Your task to perform on an android device: Go to Android settings Image 0: 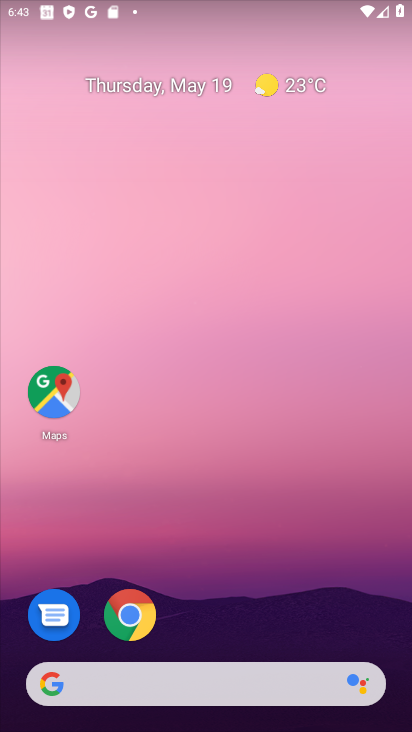
Step 0: drag from (359, 625) to (245, 67)
Your task to perform on an android device: Go to Android settings Image 1: 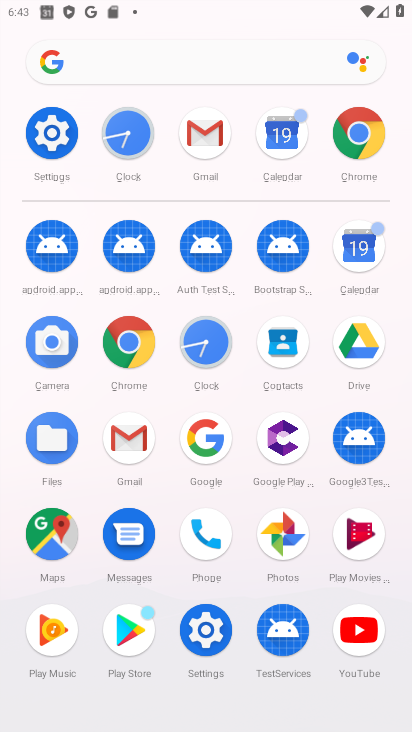
Step 1: click (39, 147)
Your task to perform on an android device: Go to Android settings Image 2: 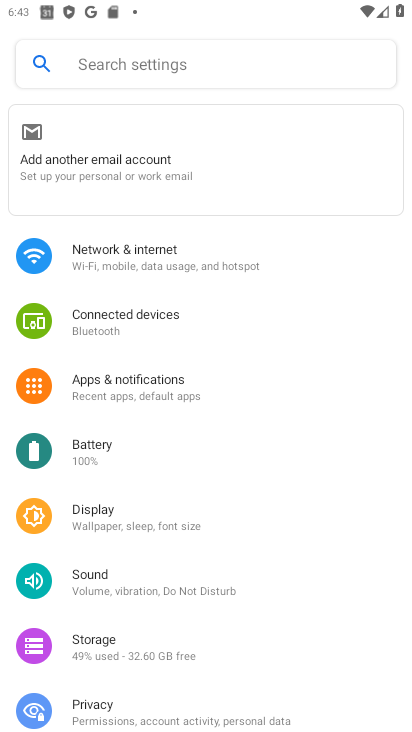
Step 2: drag from (124, 674) to (182, 129)
Your task to perform on an android device: Go to Android settings Image 3: 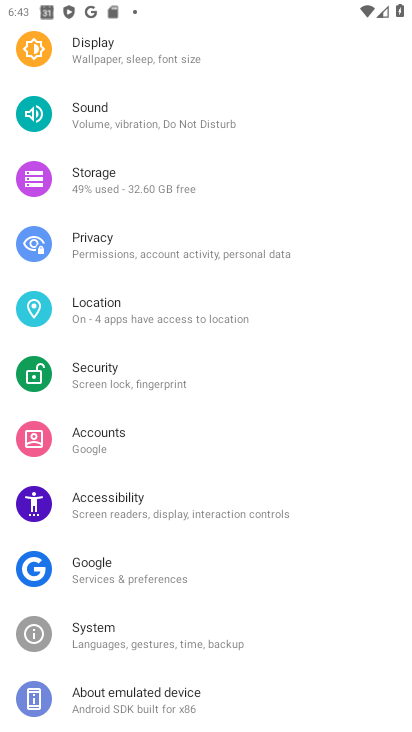
Step 3: click (92, 685)
Your task to perform on an android device: Go to Android settings Image 4: 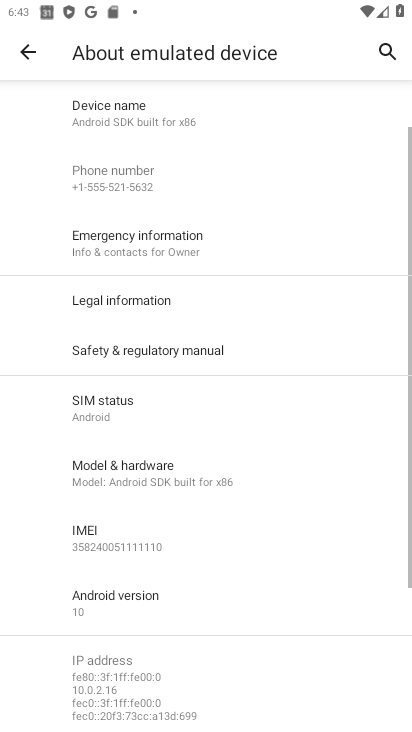
Step 4: drag from (107, 638) to (162, 208)
Your task to perform on an android device: Go to Android settings Image 5: 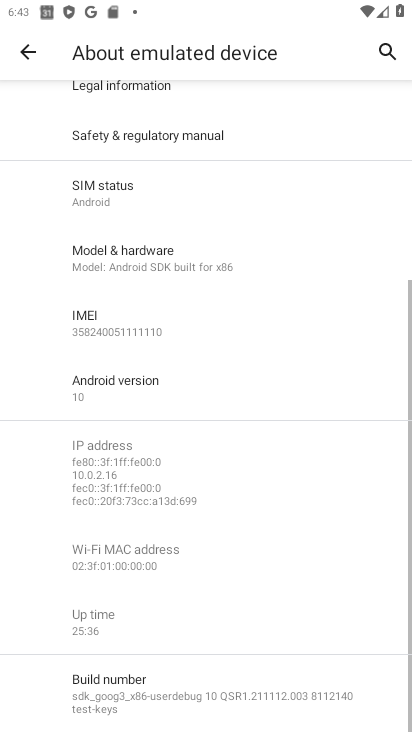
Step 5: click (151, 381)
Your task to perform on an android device: Go to Android settings Image 6: 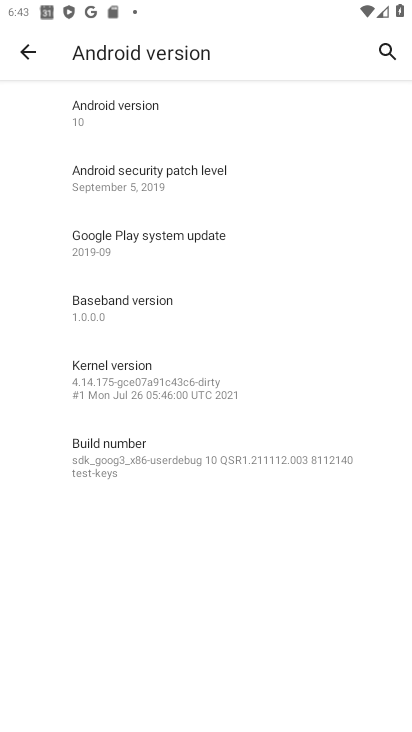
Step 6: task complete